Your task to perform on an android device: Open Google Maps and go to "Timeline" Image 0: 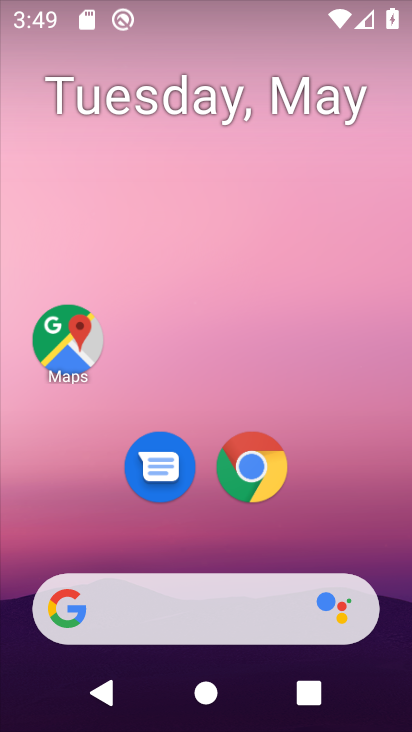
Step 0: click (63, 350)
Your task to perform on an android device: Open Google Maps and go to "Timeline" Image 1: 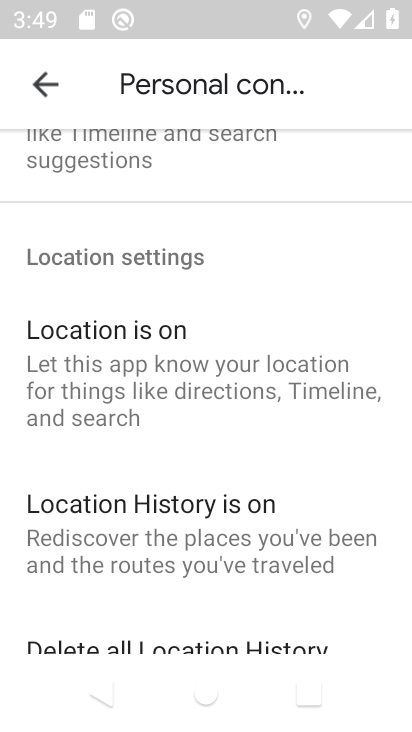
Step 1: click (43, 81)
Your task to perform on an android device: Open Google Maps and go to "Timeline" Image 2: 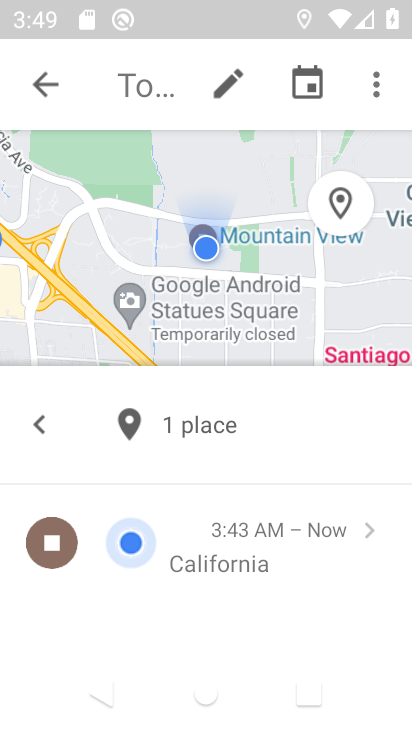
Step 2: click (33, 79)
Your task to perform on an android device: Open Google Maps and go to "Timeline" Image 3: 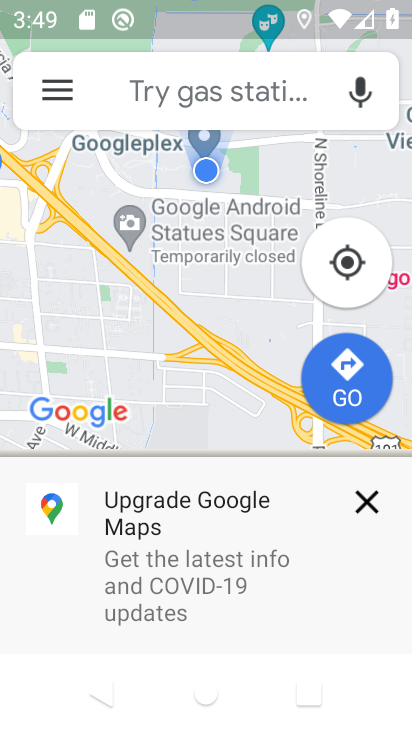
Step 3: click (56, 87)
Your task to perform on an android device: Open Google Maps and go to "Timeline" Image 4: 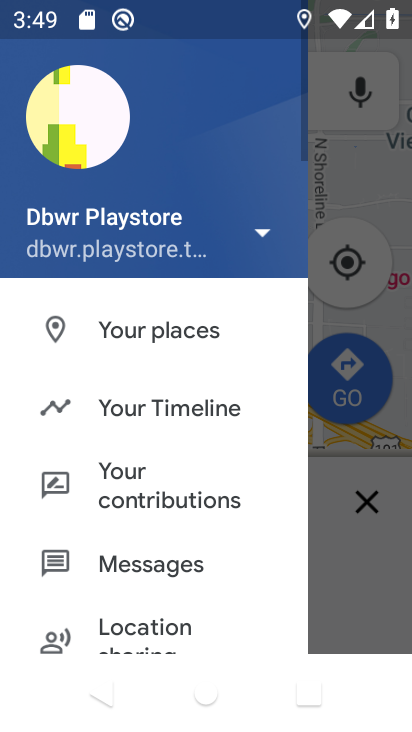
Step 4: click (179, 408)
Your task to perform on an android device: Open Google Maps and go to "Timeline" Image 5: 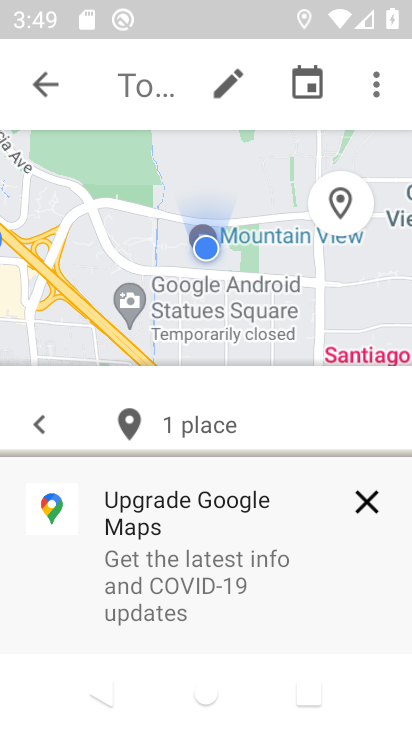
Step 5: task complete